Your task to perform on an android device: Open Google Image 0: 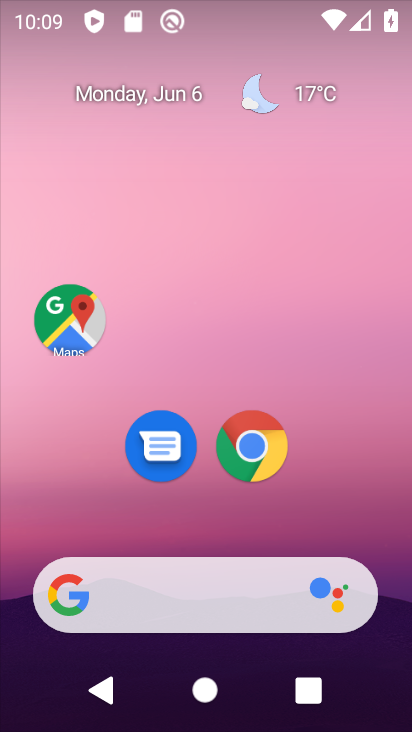
Step 0: click (107, 629)
Your task to perform on an android device: Open Google Image 1: 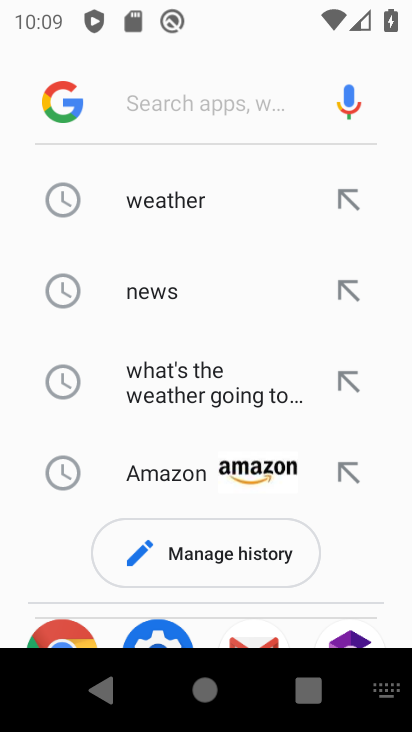
Step 1: task complete